Your task to perform on an android device: check google app version Image 0: 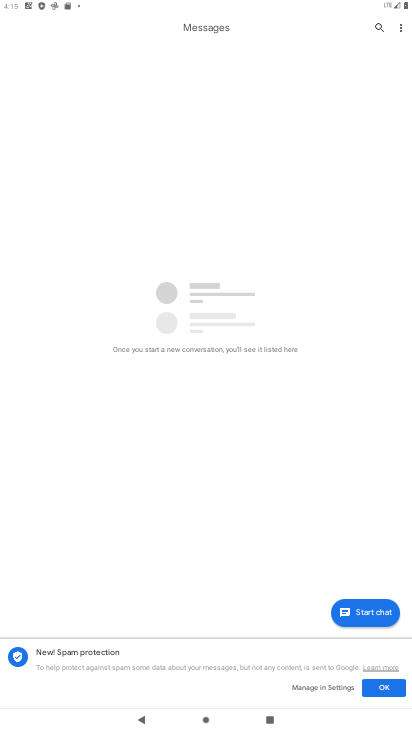
Step 0: press home button
Your task to perform on an android device: check google app version Image 1: 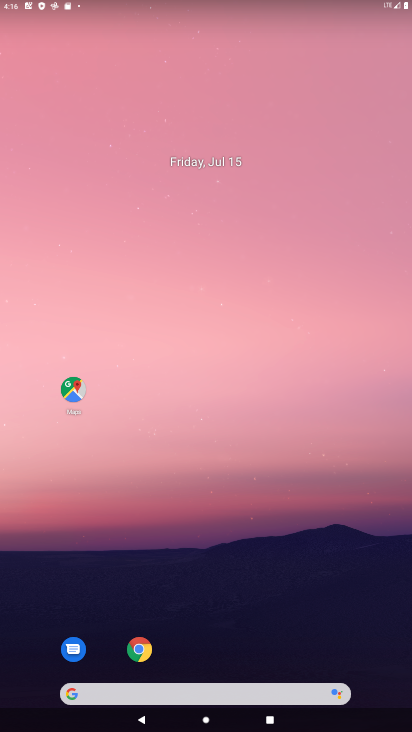
Step 1: drag from (265, 602) to (294, 162)
Your task to perform on an android device: check google app version Image 2: 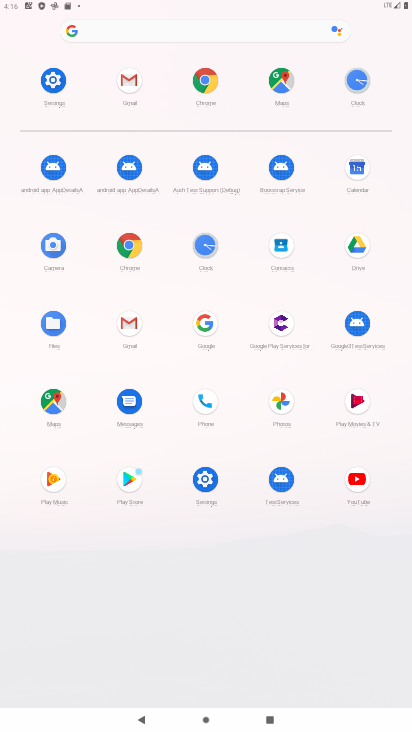
Step 2: click (209, 329)
Your task to perform on an android device: check google app version Image 3: 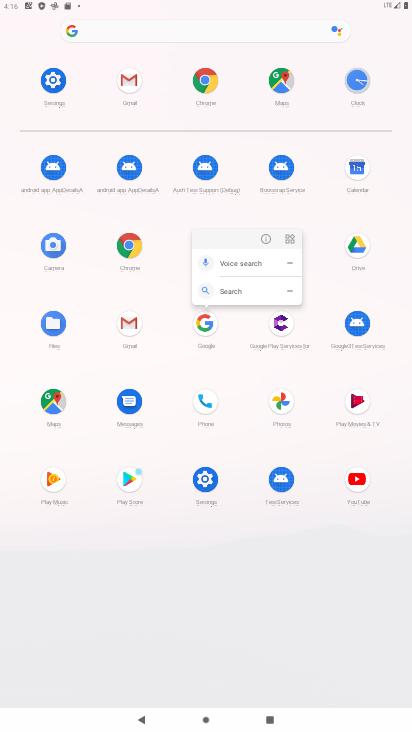
Step 3: click (267, 239)
Your task to perform on an android device: check google app version Image 4: 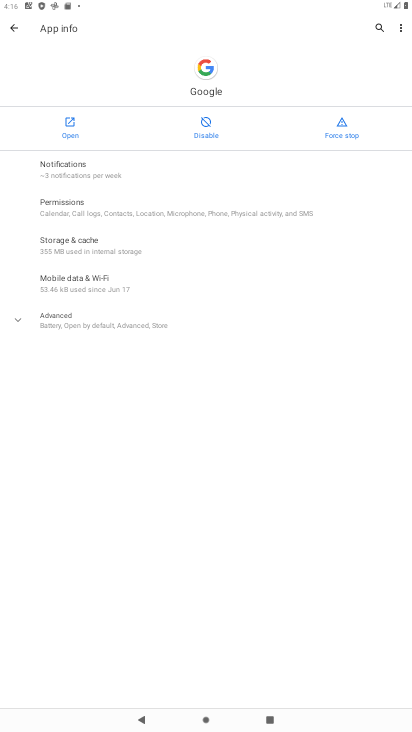
Step 4: click (76, 328)
Your task to perform on an android device: check google app version Image 5: 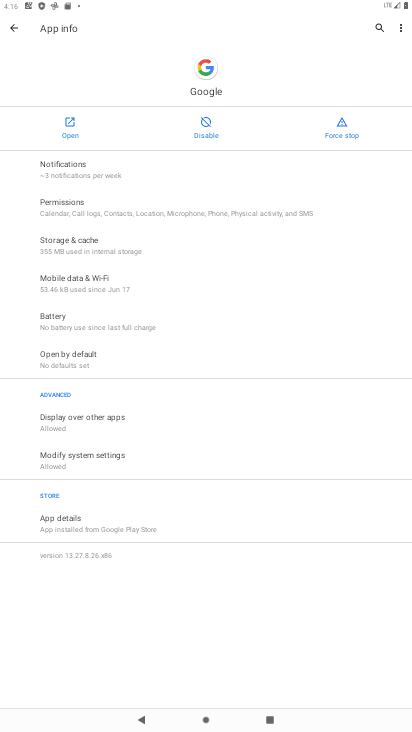
Step 5: task complete